Your task to perform on an android device: What's the weather going to be this weekend? Image 0: 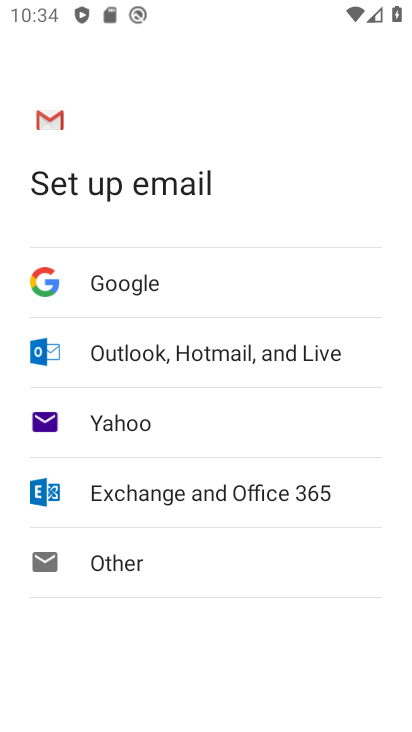
Step 0: press home button
Your task to perform on an android device: What's the weather going to be this weekend? Image 1: 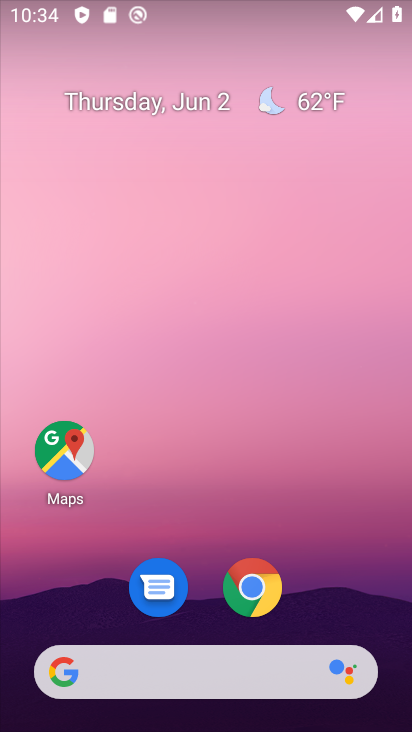
Step 1: drag from (366, 603) to (372, 198)
Your task to perform on an android device: What's the weather going to be this weekend? Image 2: 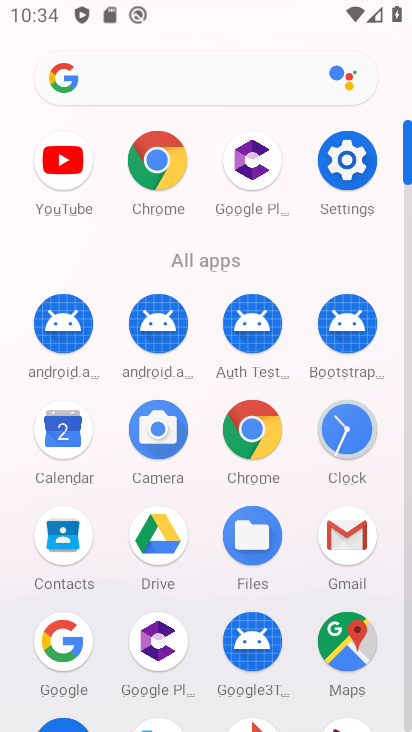
Step 2: click (253, 425)
Your task to perform on an android device: What's the weather going to be this weekend? Image 3: 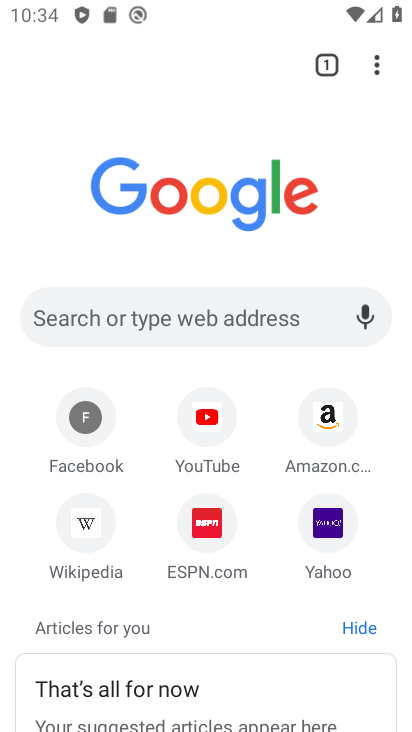
Step 3: click (198, 328)
Your task to perform on an android device: What's the weather going to be this weekend? Image 4: 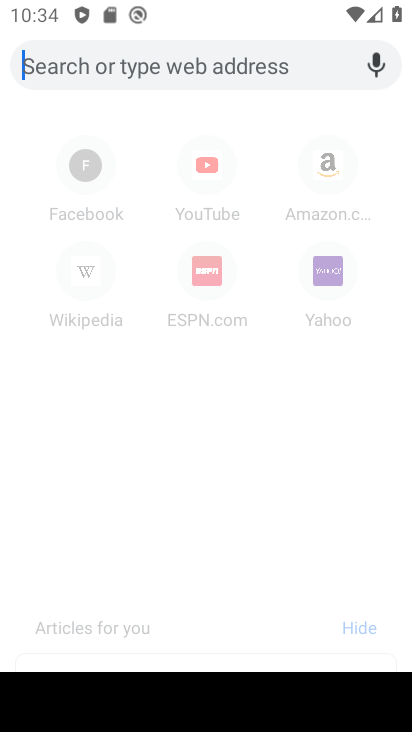
Step 4: type "what's the weather going to be this weekend "
Your task to perform on an android device: What's the weather going to be this weekend? Image 5: 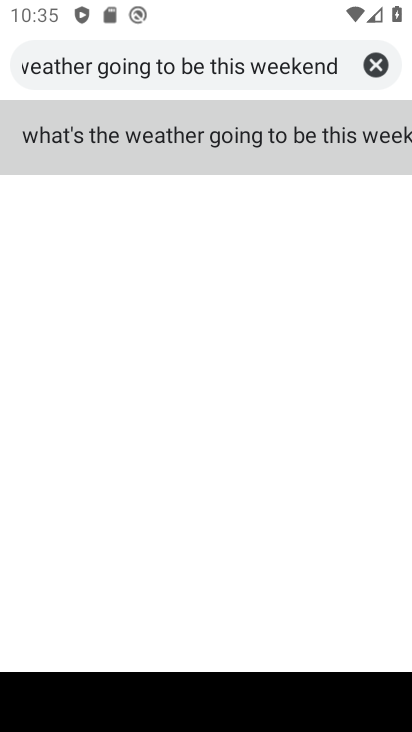
Step 5: click (227, 122)
Your task to perform on an android device: What's the weather going to be this weekend? Image 6: 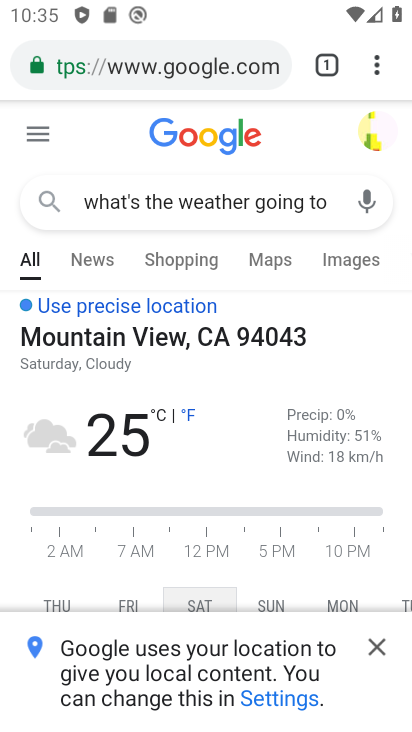
Step 6: task complete